Your task to perform on an android device: add a contact Image 0: 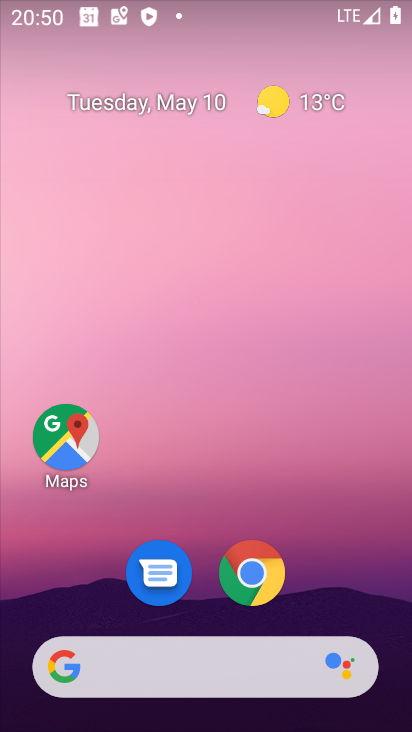
Step 0: drag from (336, 606) to (312, 1)
Your task to perform on an android device: add a contact Image 1: 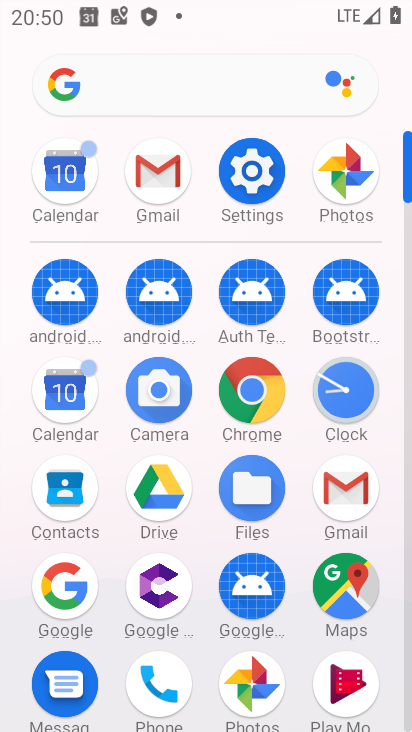
Step 1: click (66, 496)
Your task to perform on an android device: add a contact Image 2: 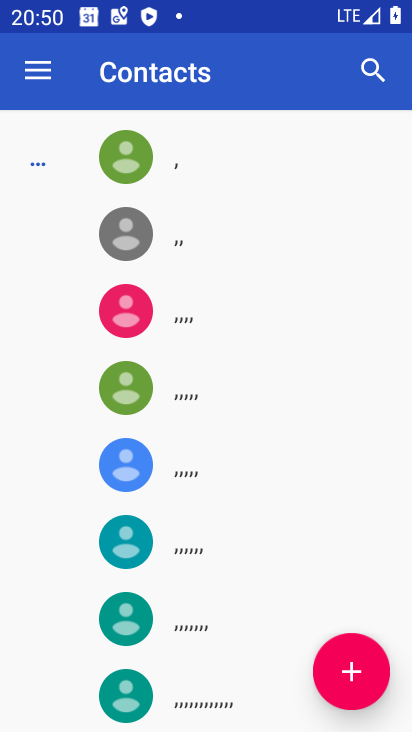
Step 2: click (349, 674)
Your task to perform on an android device: add a contact Image 3: 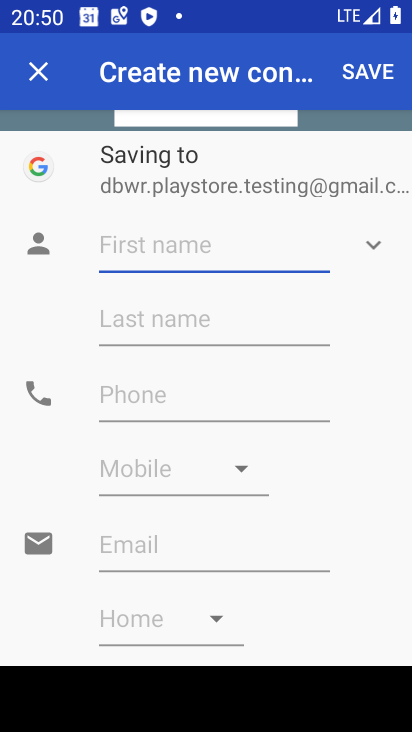
Step 3: click (140, 261)
Your task to perform on an android device: add a contact Image 4: 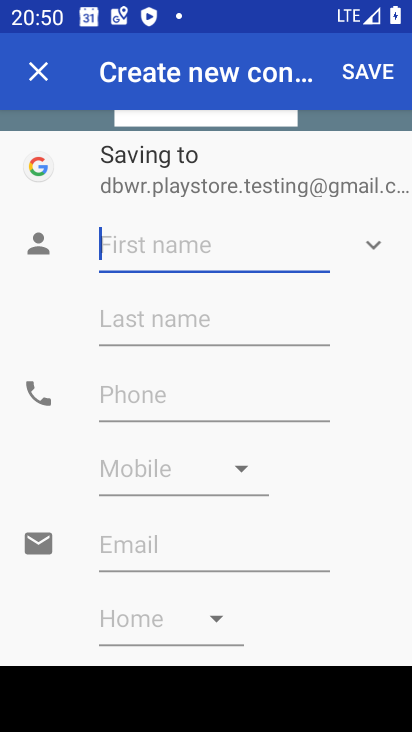
Step 4: type "gillu"
Your task to perform on an android device: add a contact Image 5: 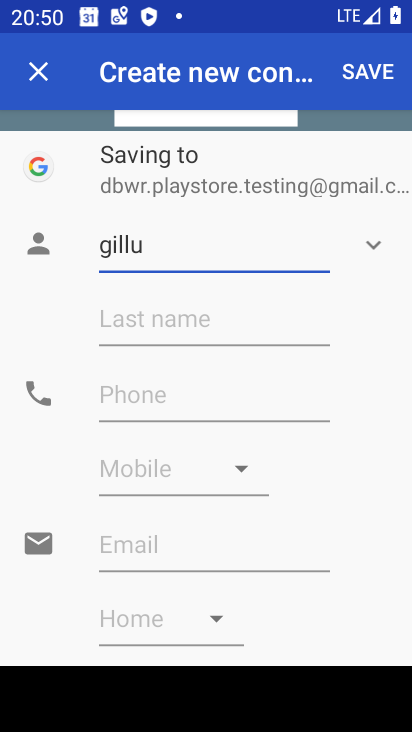
Step 5: click (169, 400)
Your task to perform on an android device: add a contact Image 6: 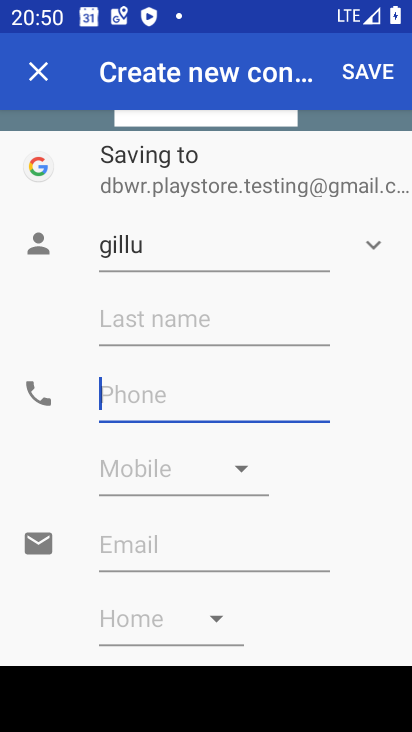
Step 6: type "9876543"
Your task to perform on an android device: add a contact Image 7: 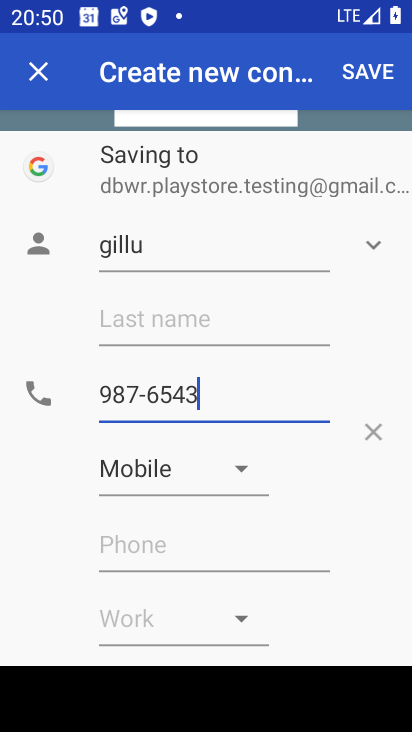
Step 7: click (382, 79)
Your task to perform on an android device: add a contact Image 8: 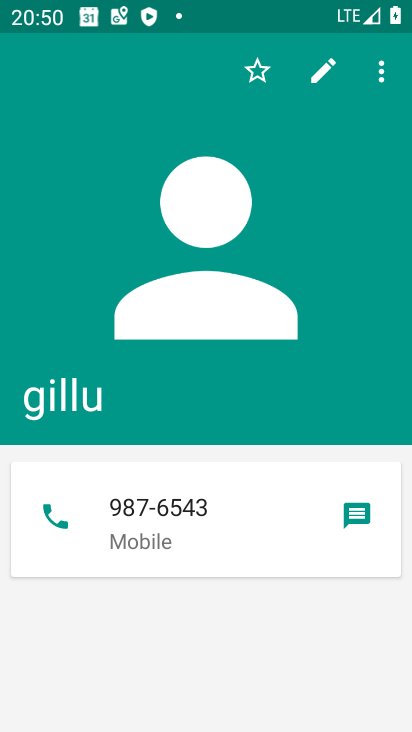
Step 8: task complete